Your task to perform on an android device: Find coffee shops on Maps Image 0: 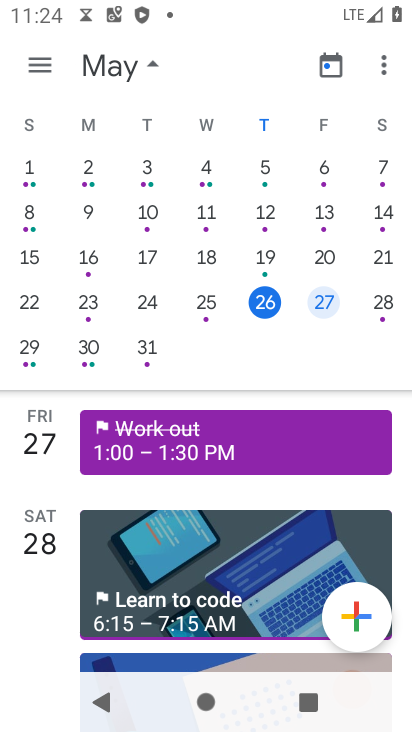
Step 0: press home button
Your task to perform on an android device: Find coffee shops on Maps Image 1: 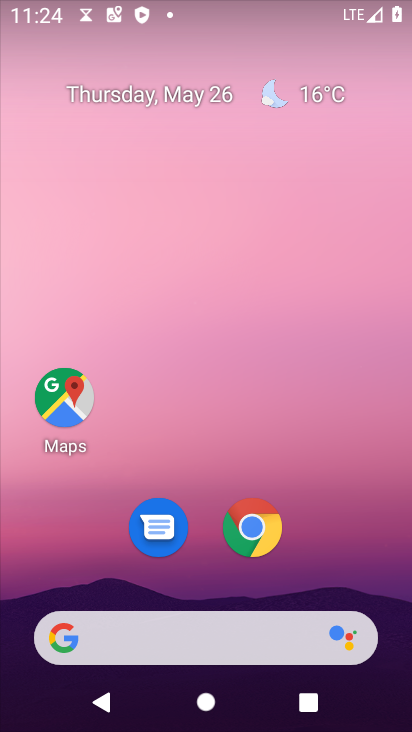
Step 1: click (66, 389)
Your task to perform on an android device: Find coffee shops on Maps Image 2: 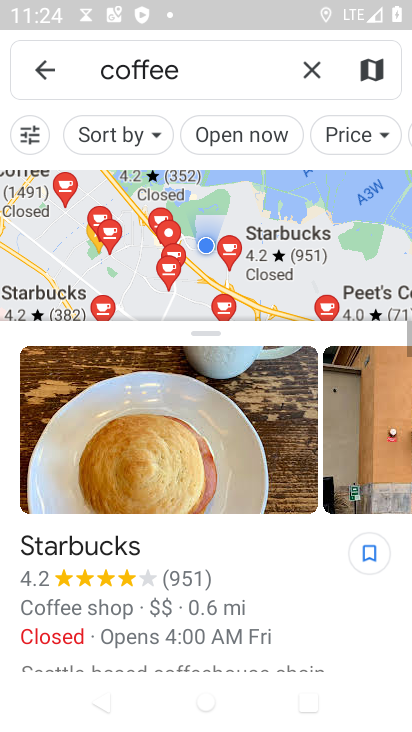
Step 2: task complete